Your task to perform on an android device: turn off javascript in the chrome app Image 0: 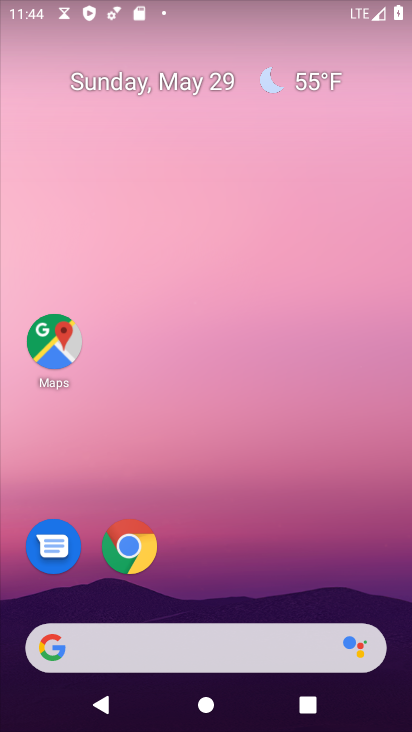
Step 0: click (133, 560)
Your task to perform on an android device: turn off javascript in the chrome app Image 1: 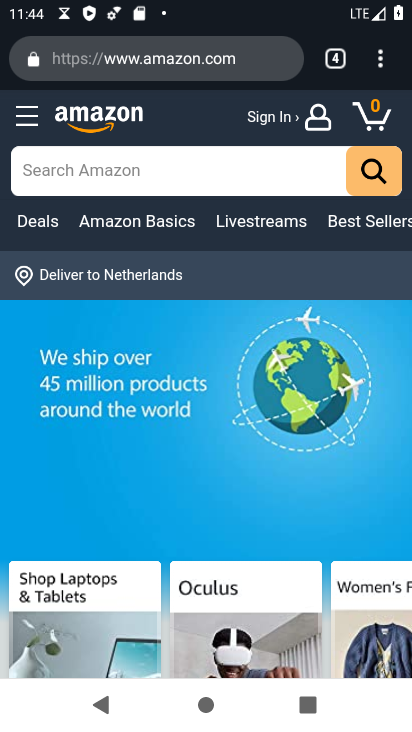
Step 1: drag from (382, 69) to (228, 573)
Your task to perform on an android device: turn off javascript in the chrome app Image 2: 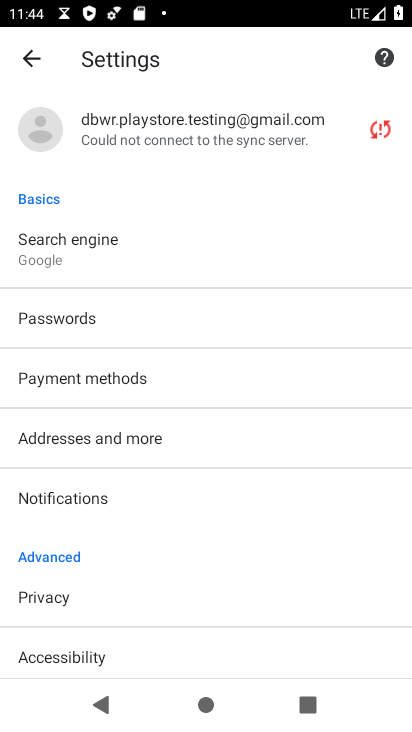
Step 2: drag from (172, 617) to (286, 238)
Your task to perform on an android device: turn off javascript in the chrome app Image 3: 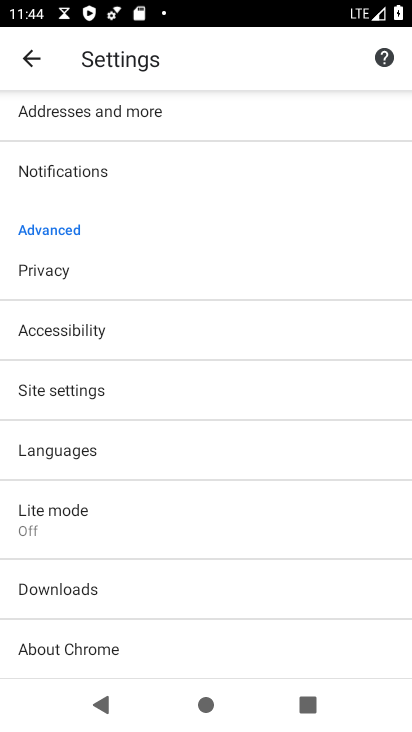
Step 3: click (64, 397)
Your task to perform on an android device: turn off javascript in the chrome app Image 4: 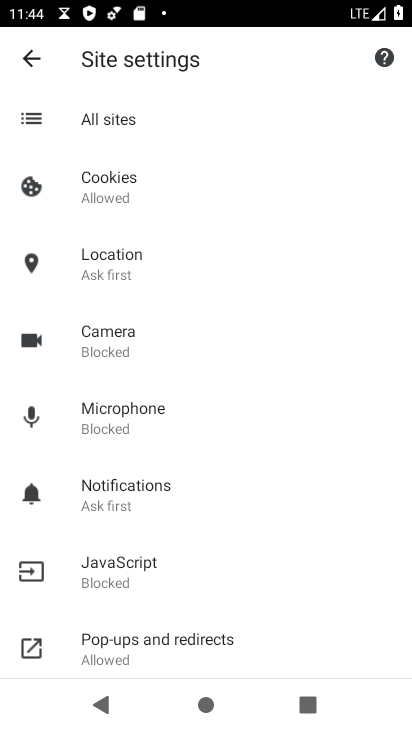
Step 4: click (108, 570)
Your task to perform on an android device: turn off javascript in the chrome app Image 5: 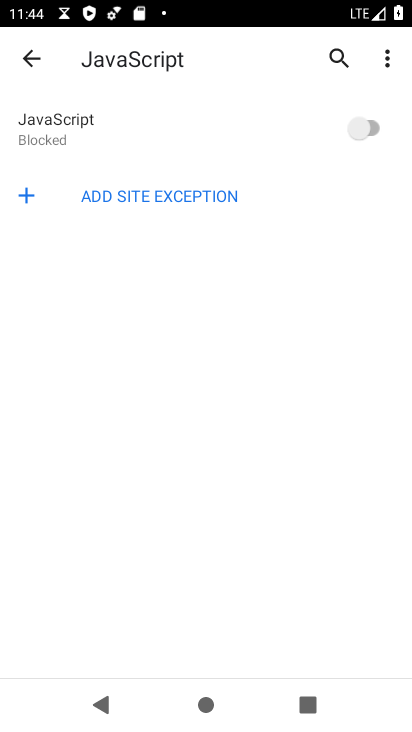
Step 5: task complete